Your task to perform on an android device: Open Wikipedia Image 0: 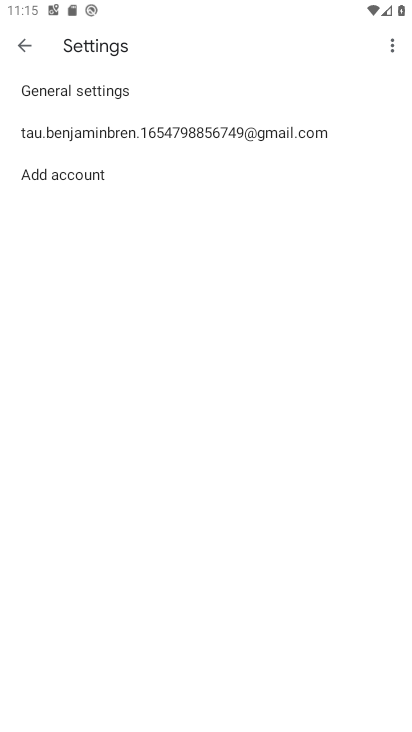
Step 0: press home button
Your task to perform on an android device: Open Wikipedia Image 1: 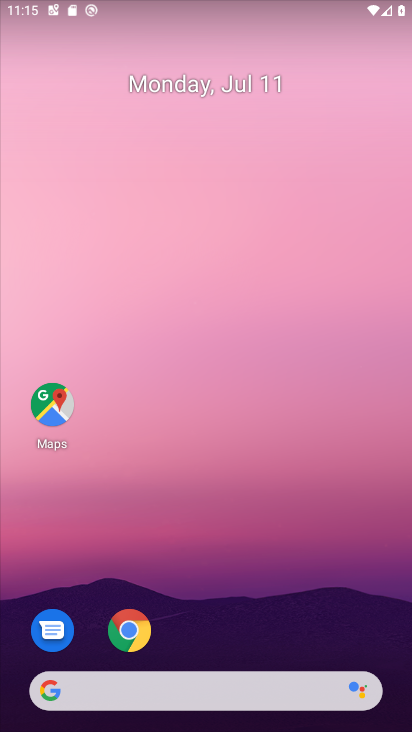
Step 1: click (138, 632)
Your task to perform on an android device: Open Wikipedia Image 2: 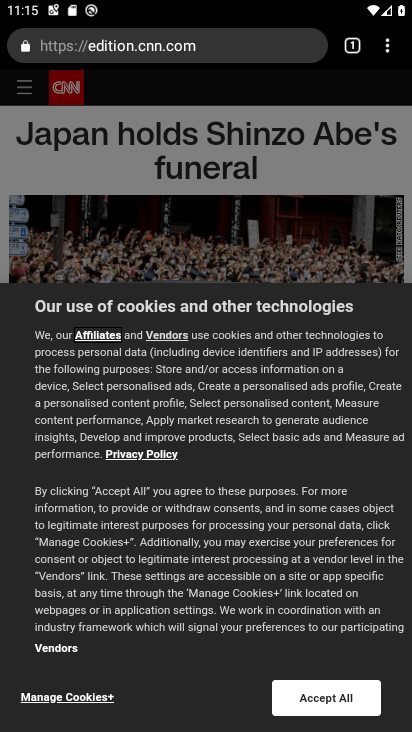
Step 2: click (154, 42)
Your task to perform on an android device: Open Wikipedia Image 3: 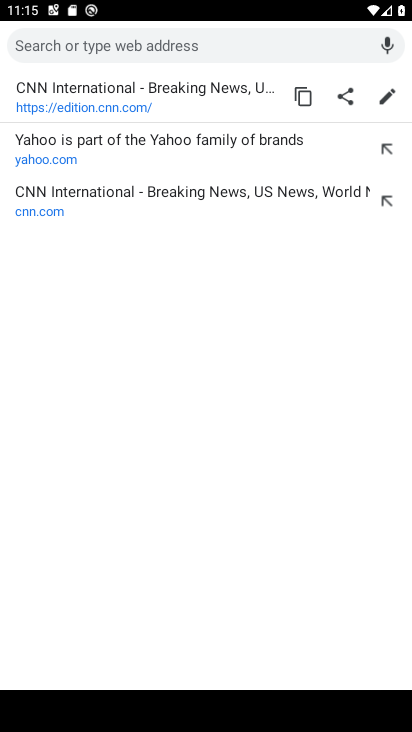
Step 3: type "wikipedia."
Your task to perform on an android device: Open Wikipedia Image 4: 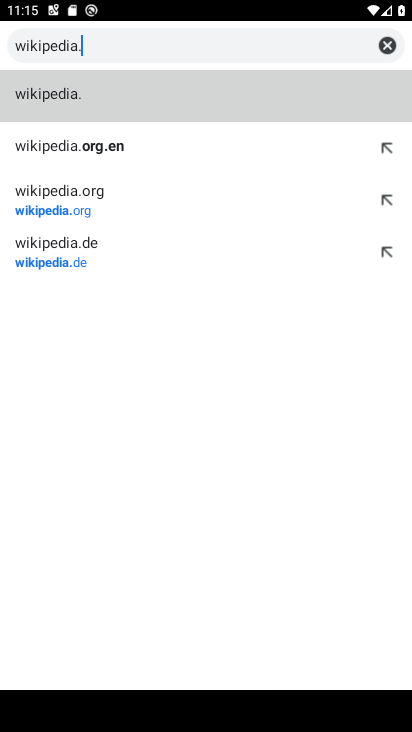
Step 4: click (82, 155)
Your task to perform on an android device: Open Wikipedia Image 5: 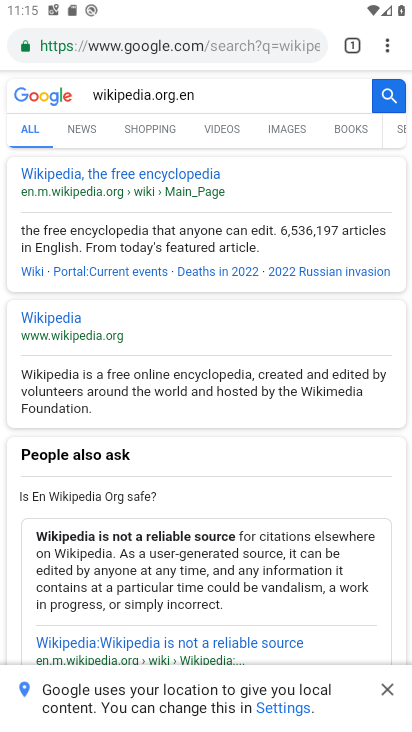
Step 5: click (200, 177)
Your task to perform on an android device: Open Wikipedia Image 6: 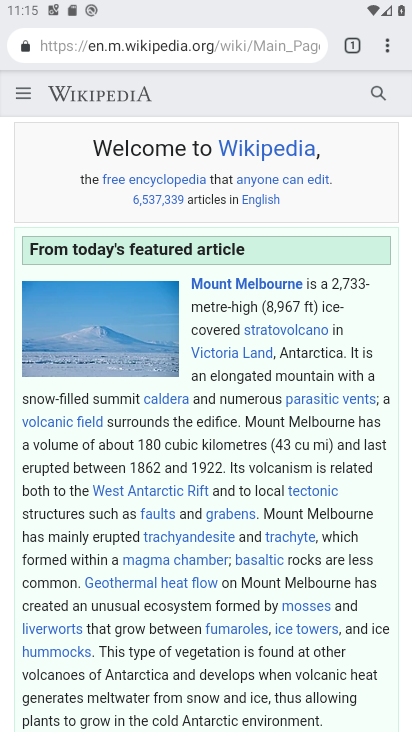
Step 6: task complete